Your task to perform on an android device: toggle javascript in the chrome app Image 0: 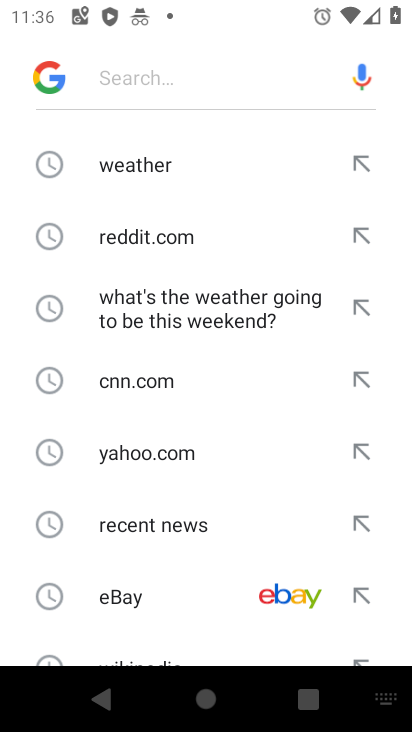
Step 0: press home button
Your task to perform on an android device: toggle javascript in the chrome app Image 1: 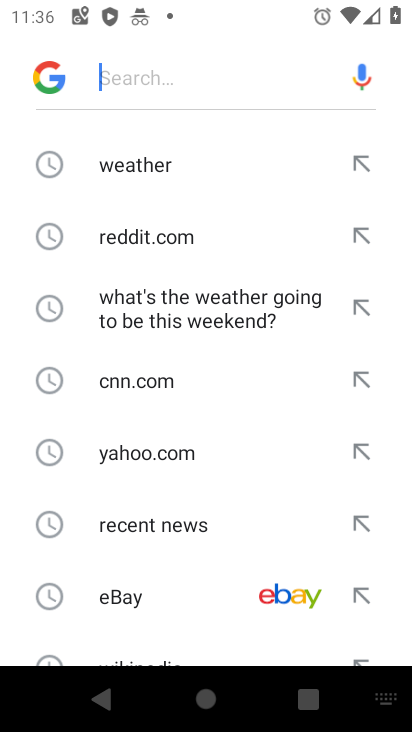
Step 1: press home button
Your task to perform on an android device: toggle javascript in the chrome app Image 2: 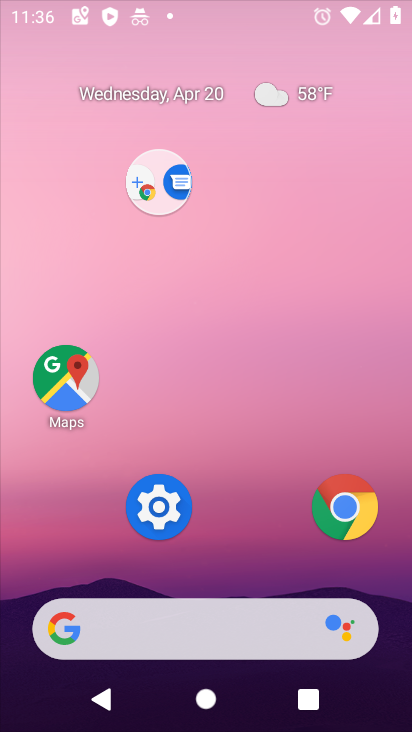
Step 2: press home button
Your task to perform on an android device: toggle javascript in the chrome app Image 3: 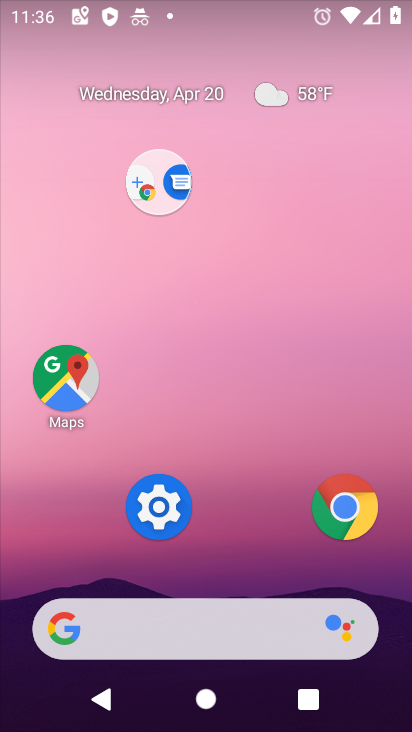
Step 3: press home button
Your task to perform on an android device: toggle javascript in the chrome app Image 4: 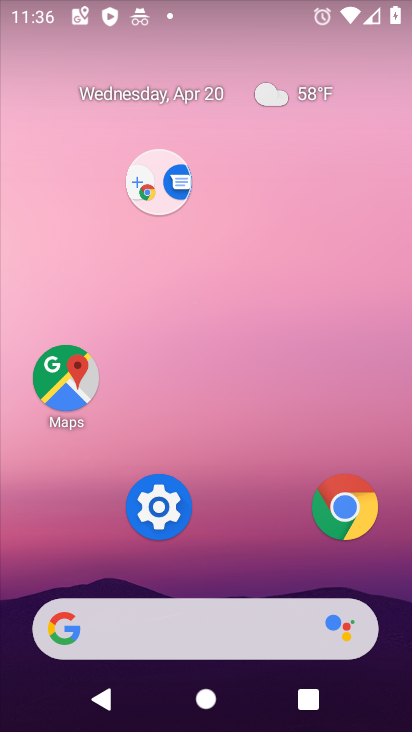
Step 4: drag from (306, 571) to (232, 43)
Your task to perform on an android device: toggle javascript in the chrome app Image 5: 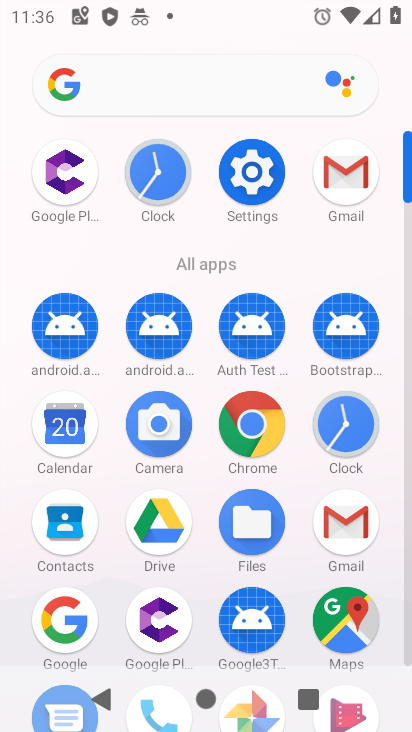
Step 5: click (252, 413)
Your task to perform on an android device: toggle javascript in the chrome app Image 6: 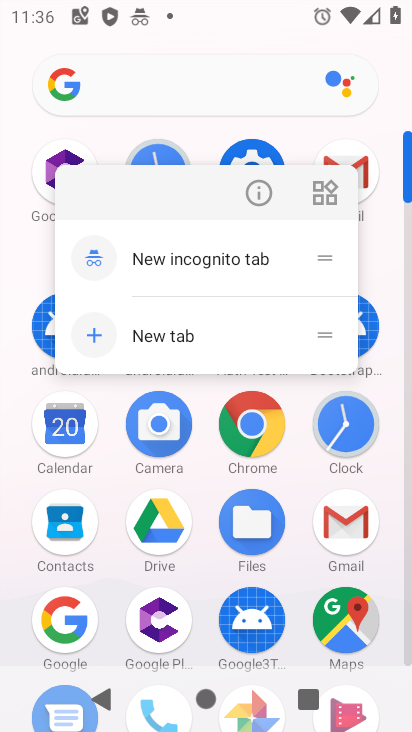
Step 6: click (157, 343)
Your task to perform on an android device: toggle javascript in the chrome app Image 7: 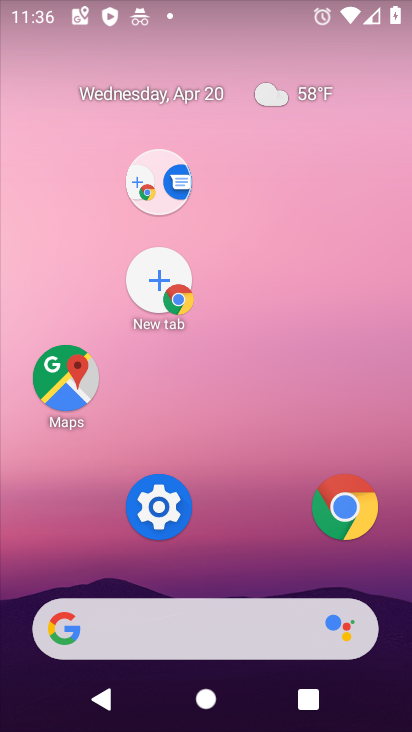
Step 7: click (329, 515)
Your task to perform on an android device: toggle javascript in the chrome app Image 8: 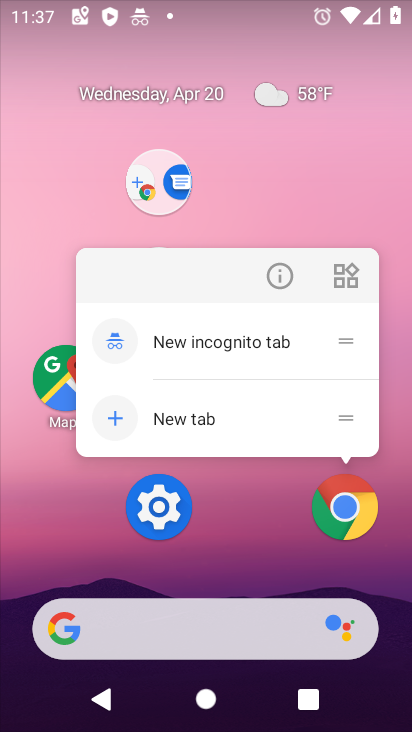
Step 8: drag from (225, 615) to (153, 152)
Your task to perform on an android device: toggle javascript in the chrome app Image 9: 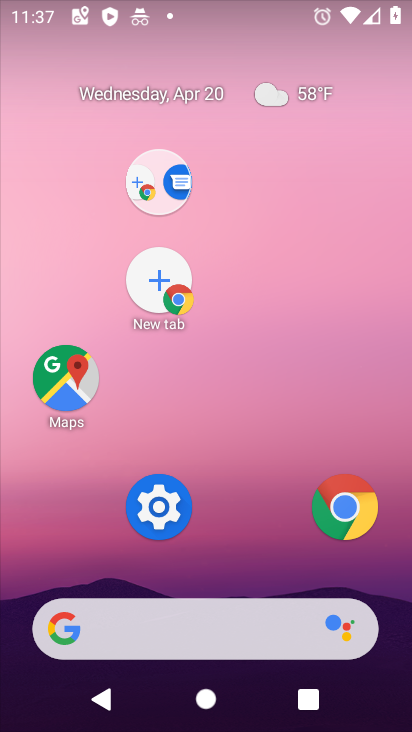
Step 9: click (191, 198)
Your task to perform on an android device: toggle javascript in the chrome app Image 10: 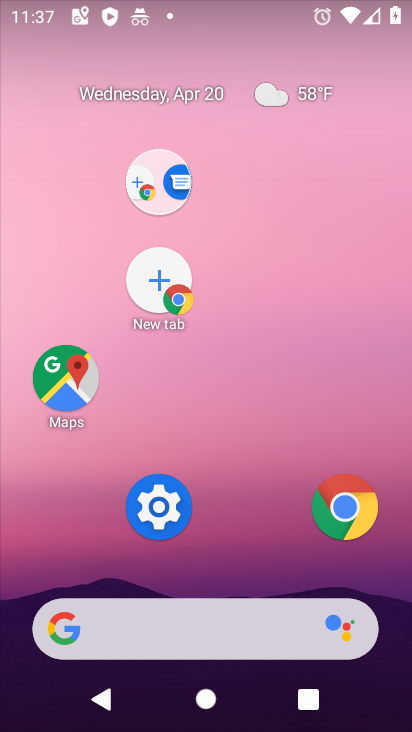
Step 10: click (175, 423)
Your task to perform on an android device: toggle javascript in the chrome app Image 11: 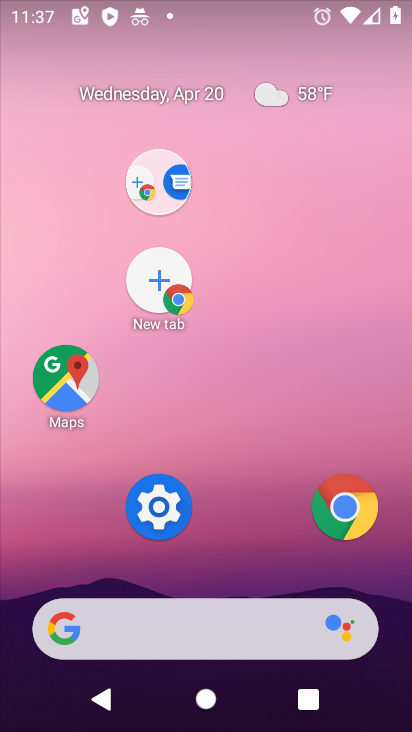
Step 11: drag from (251, 546) to (205, 186)
Your task to perform on an android device: toggle javascript in the chrome app Image 12: 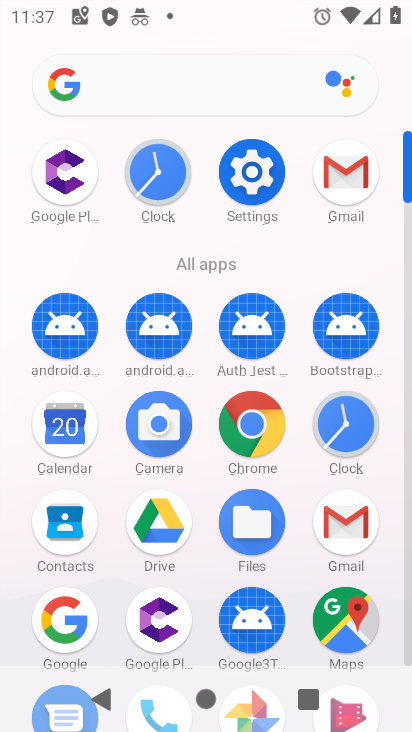
Step 12: click (254, 416)
Your task to perform on an android device: toggle javascript in the chrome app Image 13: 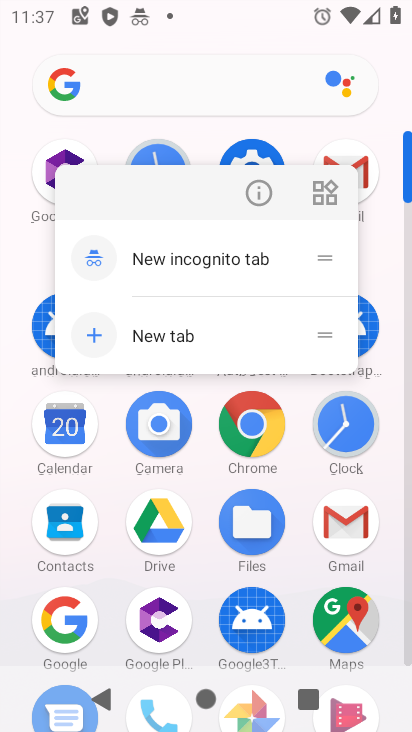
Step 13: drag from (254, 416) to (162, 338)
Your task to perform on an android device: toggle javascript in the chrome app Image 14: 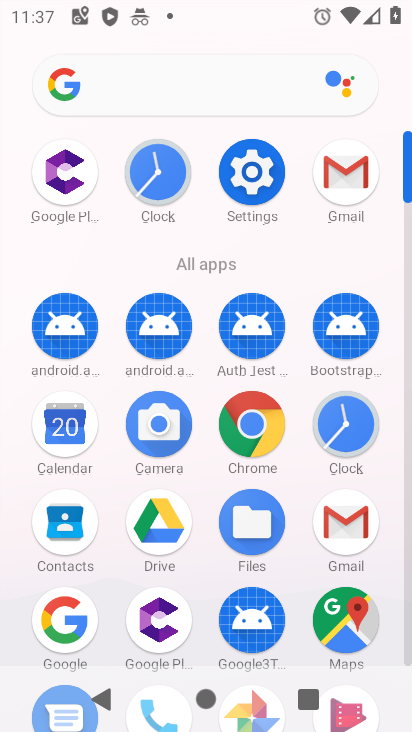
Step 14: click (162, 338)
Your task to perform on an android device: toggle javascript in the chrome app Image 15: 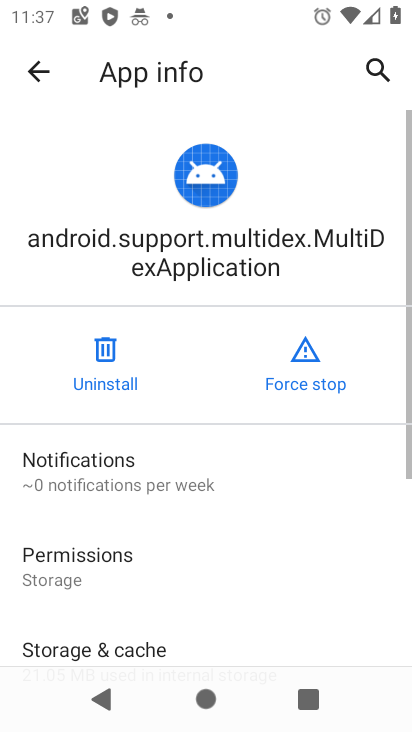
Step 15: click (164, 339)
Your task to perform on an android device: toggle javascript in the chrome app Image 16: 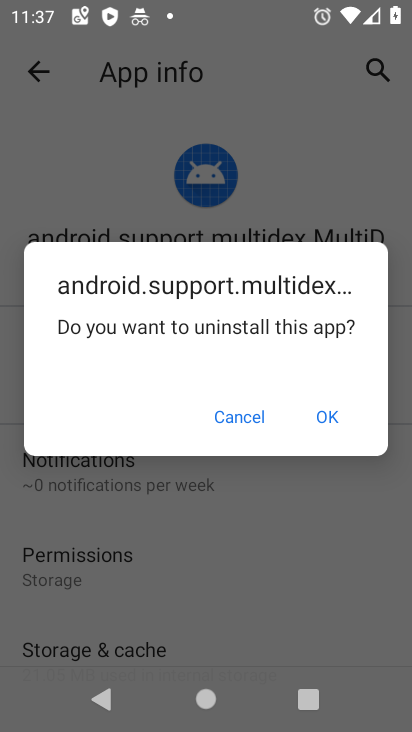
Step 16: click (33, 72)
Your task to perform on an android device: toggle javascript in the chrome app Image 17: 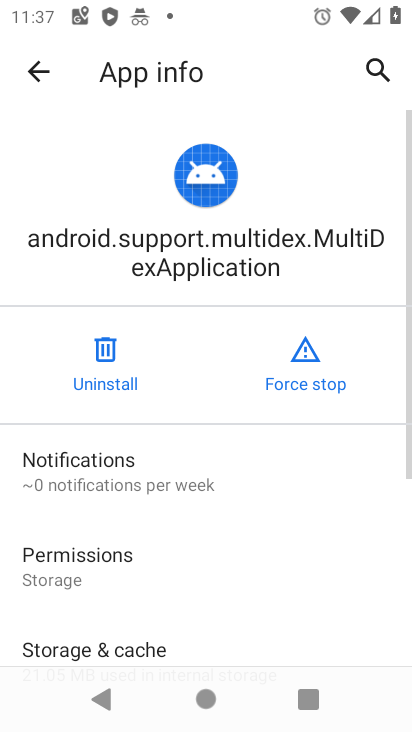
Step 17: click (36, 56)
Your task to perform on an android device: toggle javascript in the chrome app Image 18: 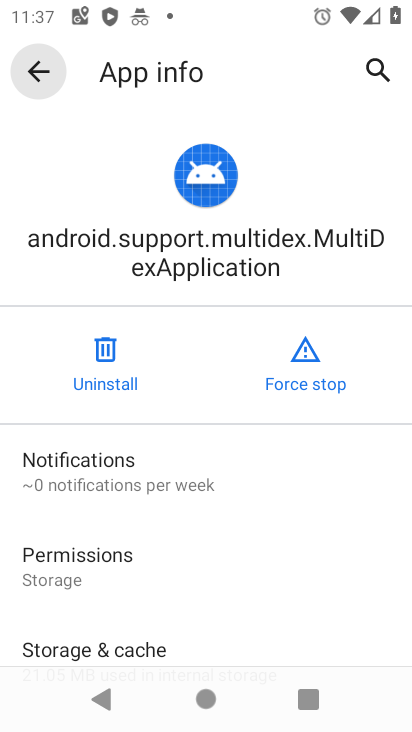
Step 18: click (41, 61)
Your task to perform on an android device: toggle javascript in the chrome app Image 19: 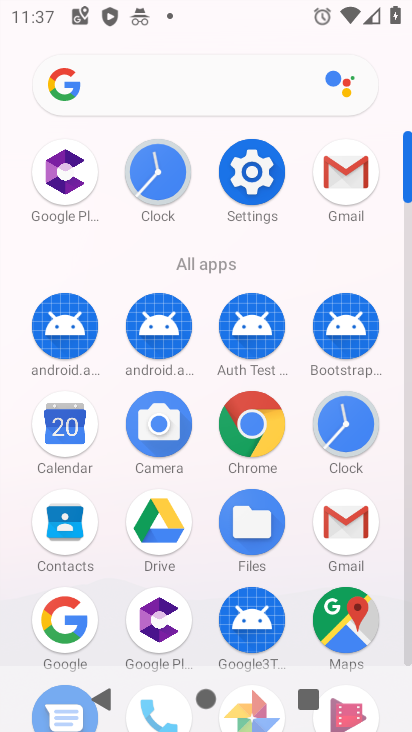
Step 19: click (253, 430)
Your task to perform on an android device: toggle javascript in the chrome app Image 20: 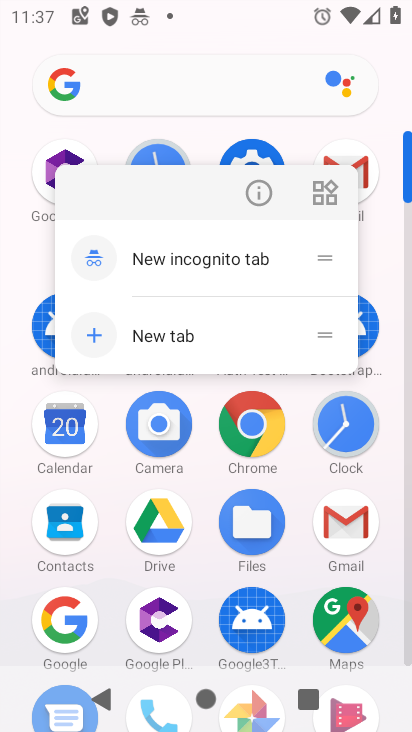
Step 20: click (252, 428)
Your task to perform on an android device: toggle javascript in the chrome app Image 21: 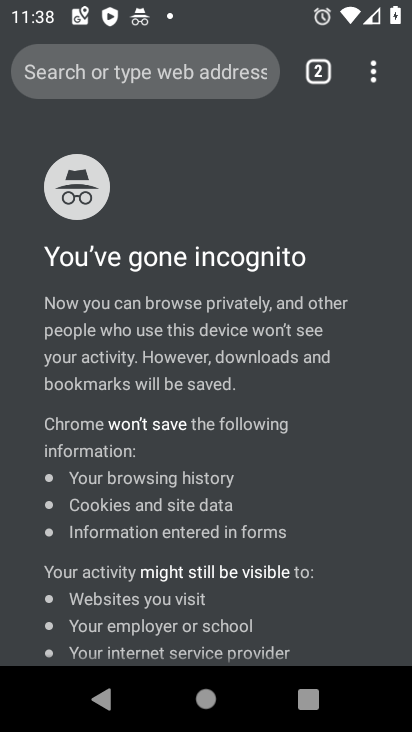
Step 21: drag from (371, 72) to (107, 529)
Your task to perform on an android device: toggle javascript in the chrome app Image 22: 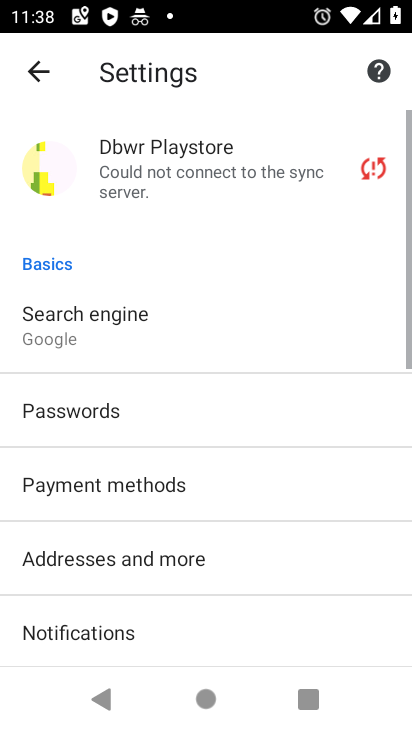
Step 22: drag from (190, 509) to (128, 208)
Your task to perform on an android device: toggle javascript in the chrome app Image 23: 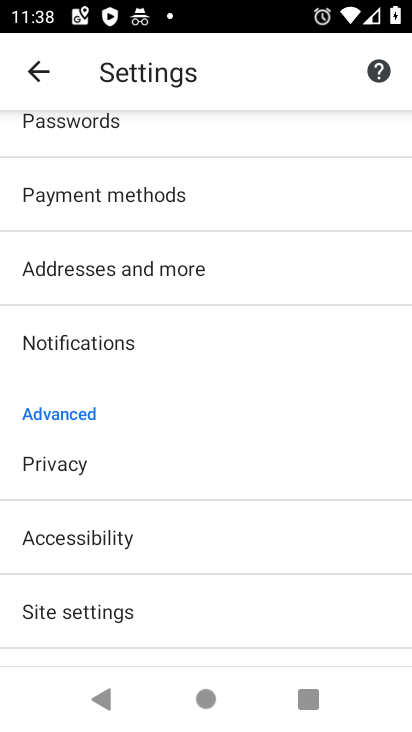
Step 23: click (88, 608)
Your task to perform on an android device: toggle javascript in the chrome app Image 24: 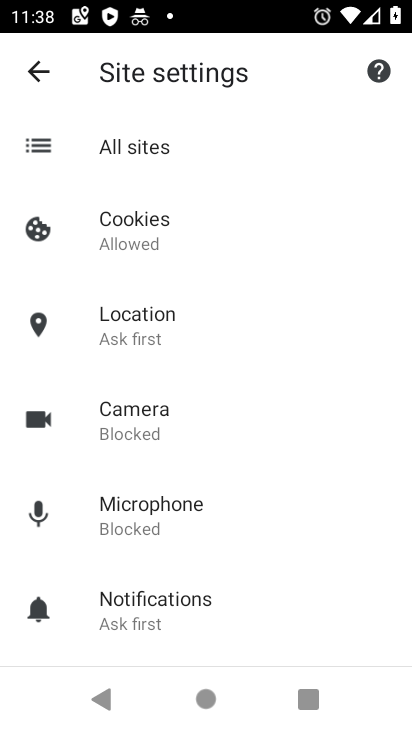
Step 24: drag from (270, 461) to (286, 195)
Your task to perform on an android device: toggle javascript in the chrome app Image 25: 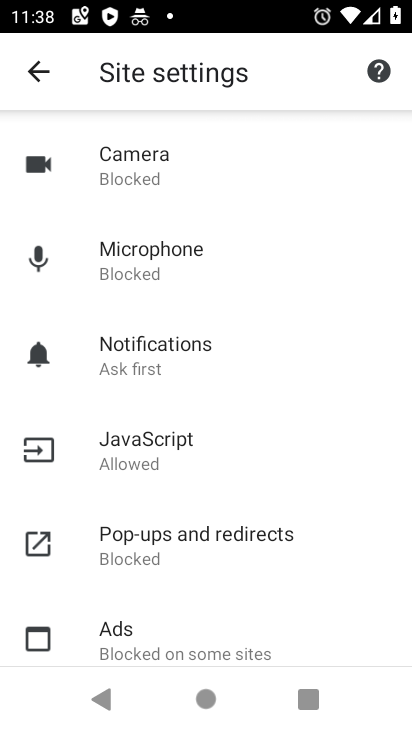
Step 25: click (144, 444)
Your task to perform on an android device: toggle javascript in the chrome app Image 26: 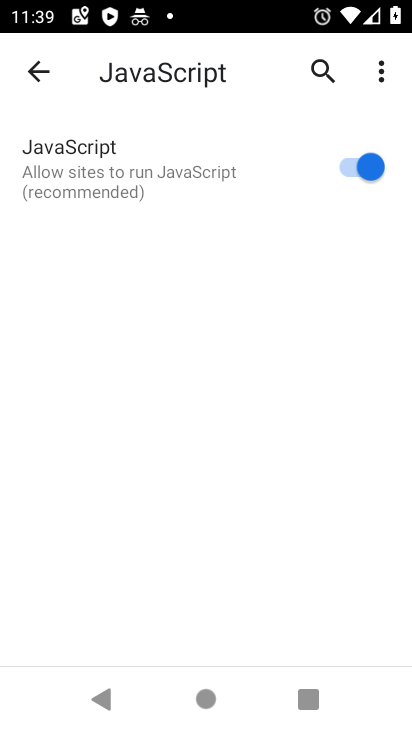
Step 26: click (370, 156)
Your task to perform on an android device: toggle javascript in the chrome app Image 27: 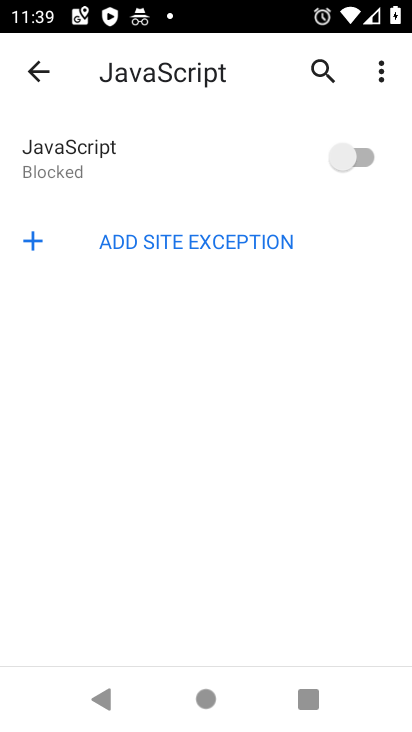
Step 27: task complete